Your task to perform on an android device: Search for sushi restaurants on Maps Image 0: 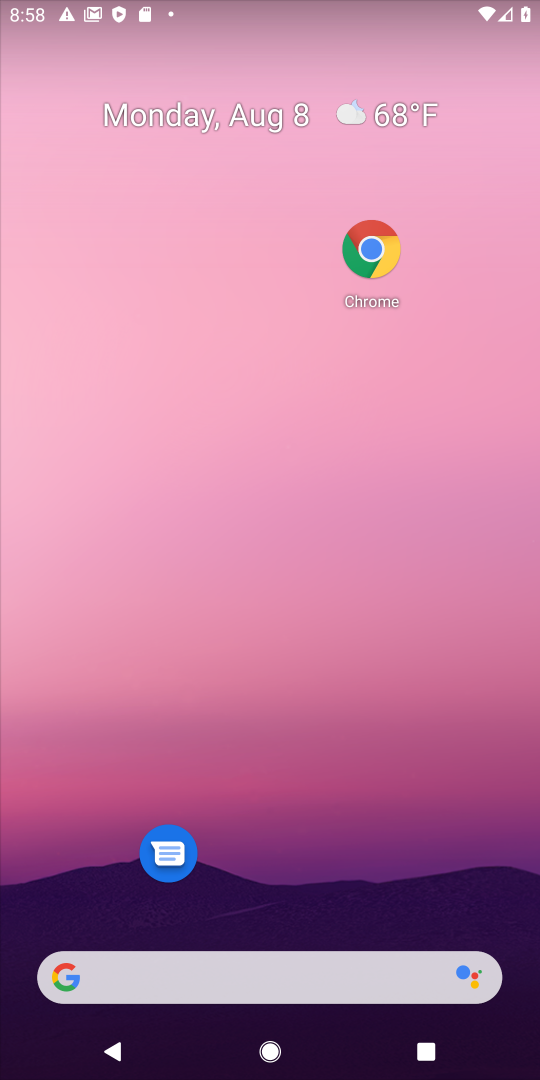
Step 0: press home button
Your task to perform on an android device: Search for sushi restaurants on Maps Image 1: 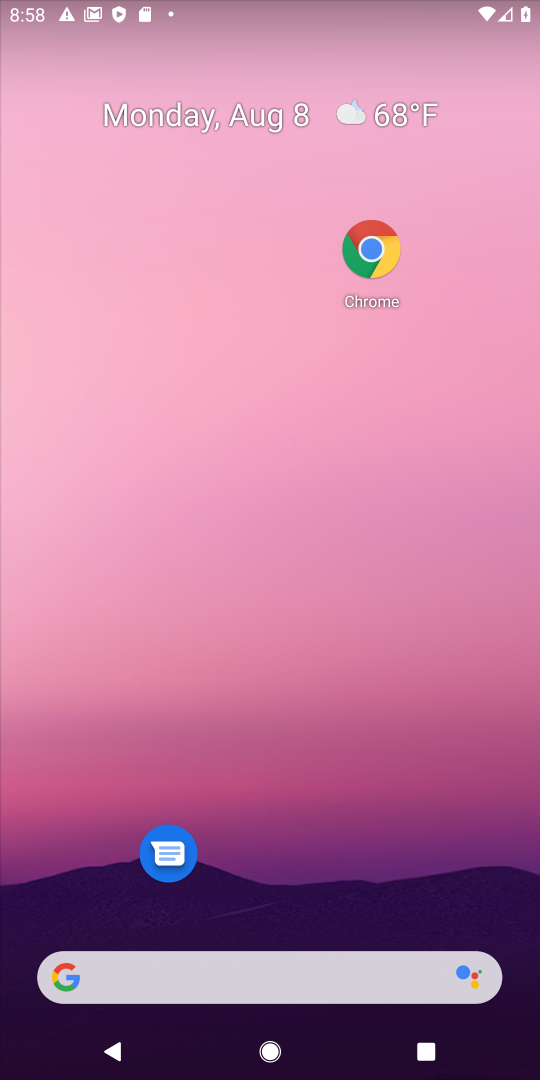
Step 1: drag from (364, 852) to (433, 572)
Your task to perform on an android device: Search for sushi restaurants on Maps Image 2: 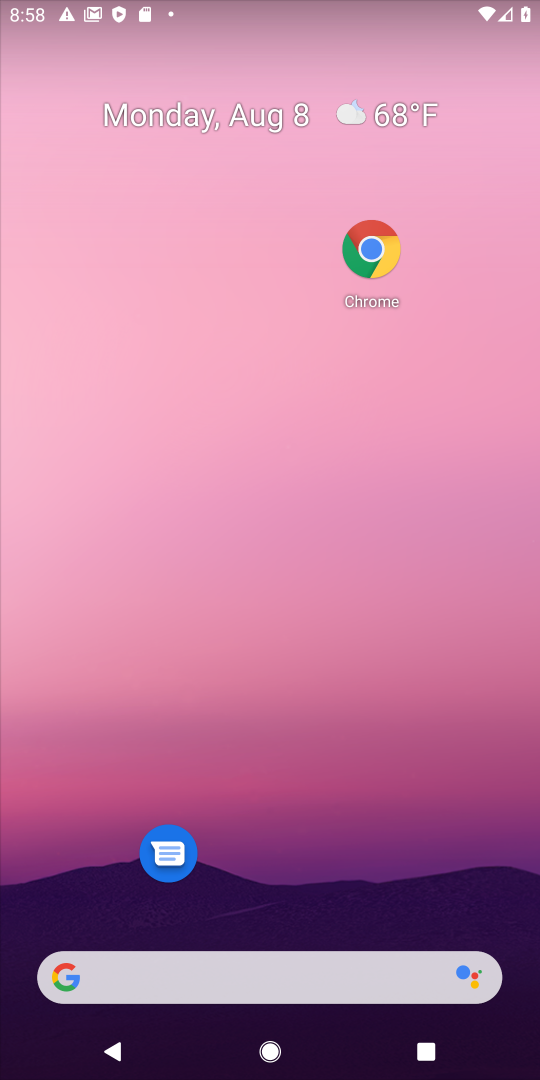
Step 2: click (457, 753)
Your task to perform on an android device: Search for sushi restaurants on Maps Image 3: 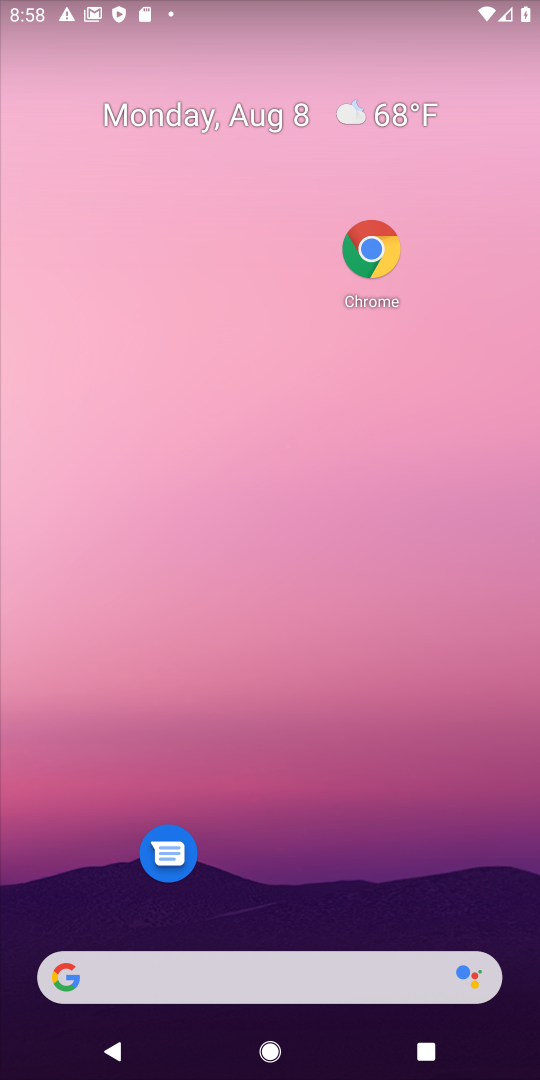
Step 3: drag from (235, 900) to (314, 254)
Your task to perform on an android device: Search for sushi restaurants on Maps Image 4: 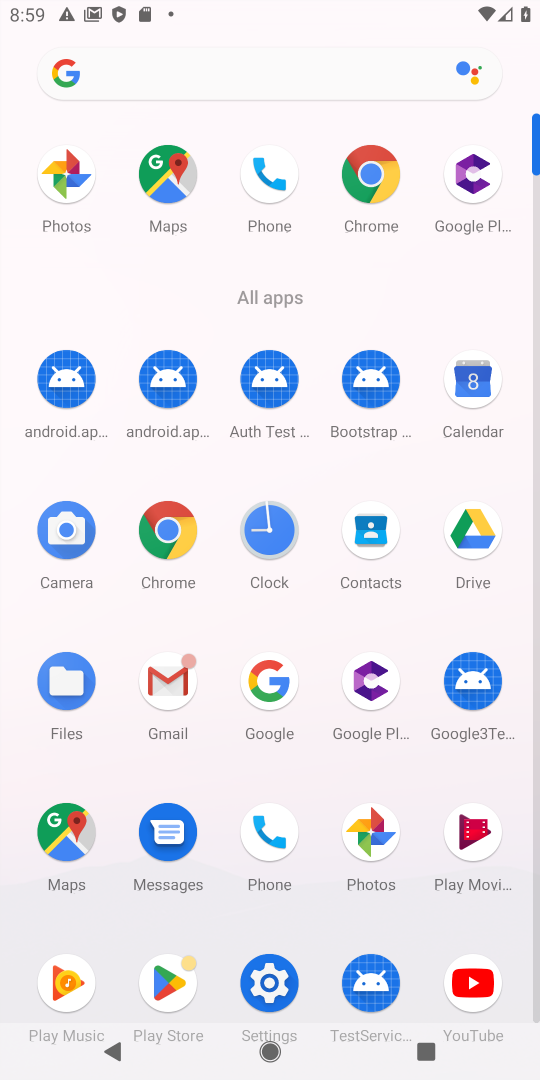
Step 4: click (174, 195)
Your task to perform on an android device: Search for sushi restaurants on Maps Image 5: 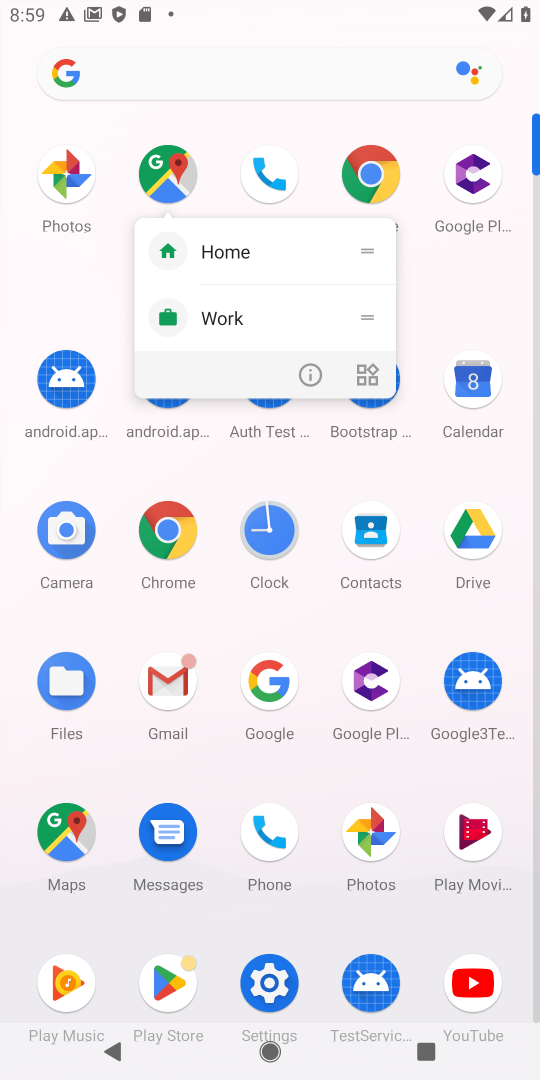
Step 5: click (174, 195)
Your task to perform on an android device: Search for sushi restaurants on Maps Image 6: 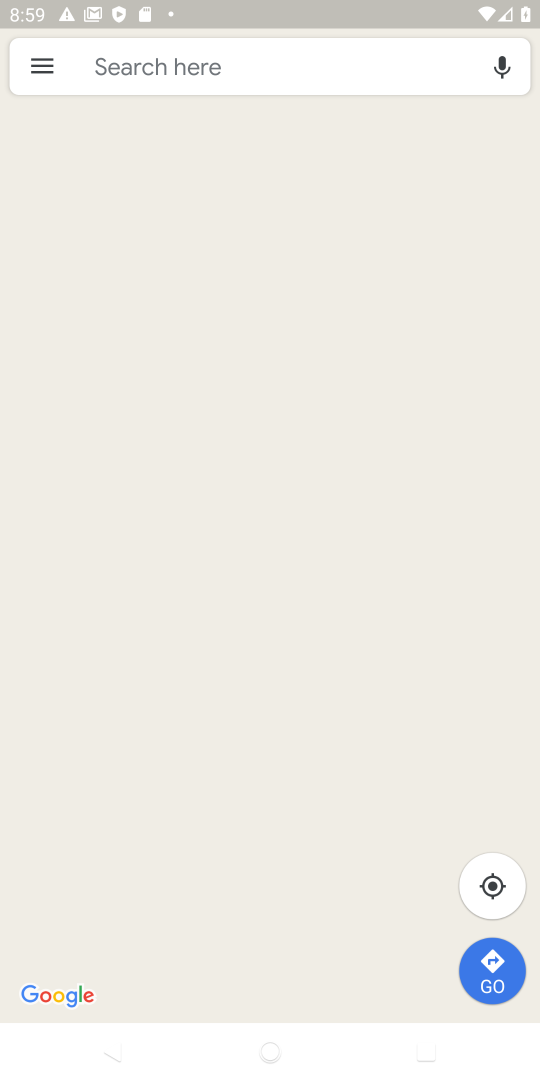
Step 6: click (267, 67)
Your task to perform on an android device: Search for sushi restaurants on Maps Image 7: 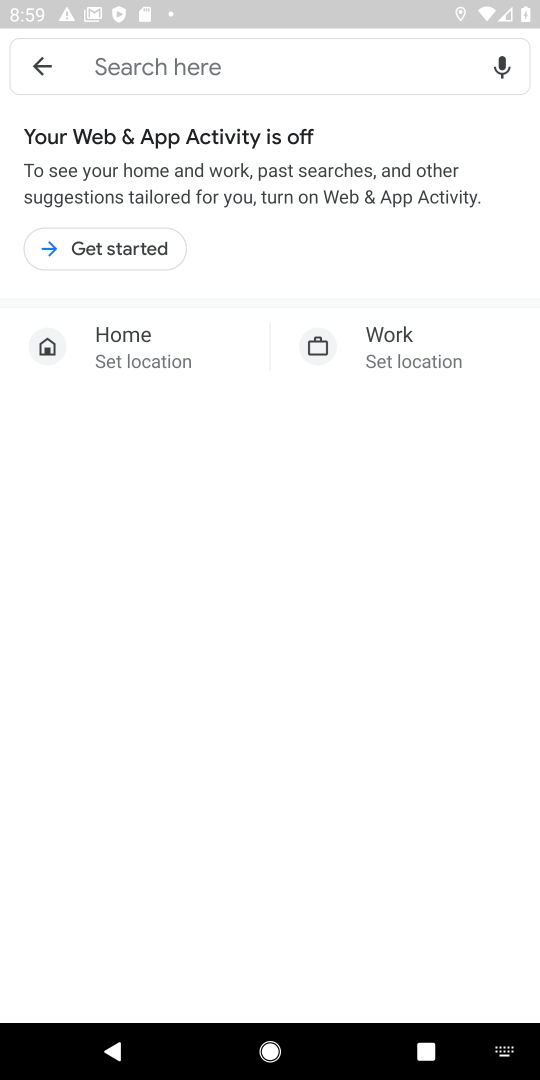
Step 7: type " sushi restaurants"
Your task to perform on an android device: Search for sushi restaurants on Maps Image 8: 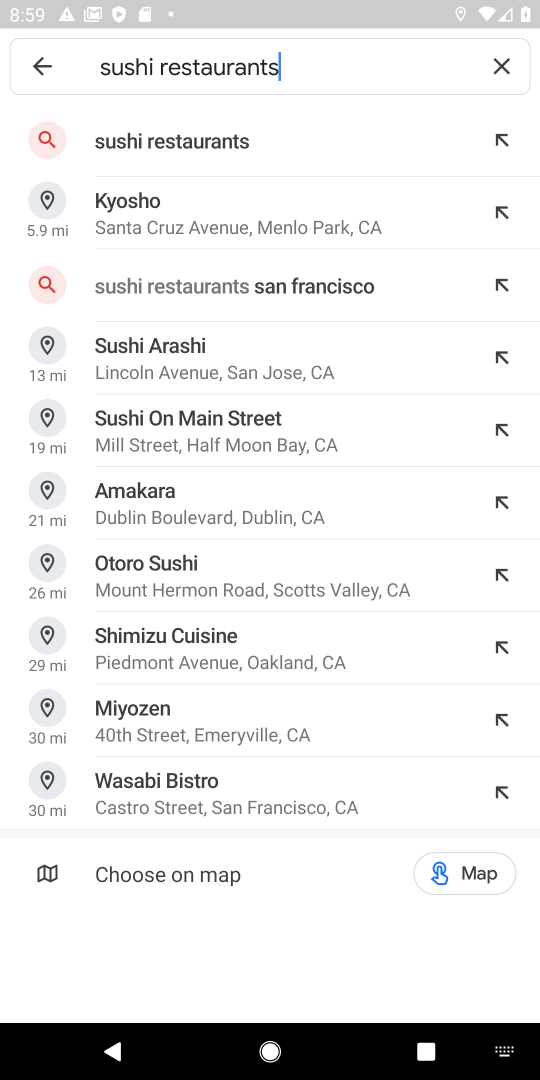
Step 8: click (220, 129)
Your task to perform on an android device: Search for sushi restaurants on Maps Image 9: 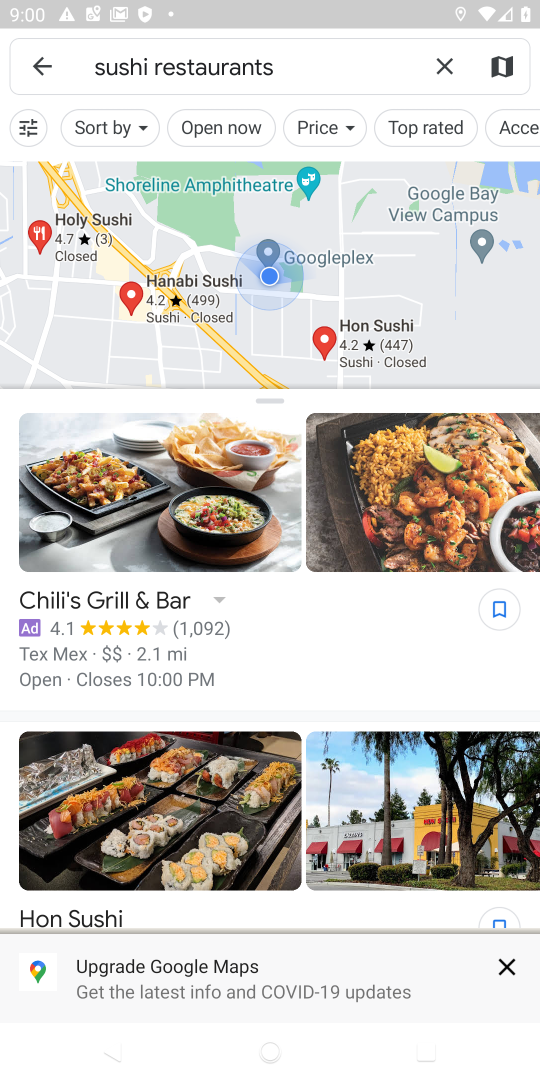
Step 9: task complete